Your task to perform on an android device: Go to eBay Image 0: 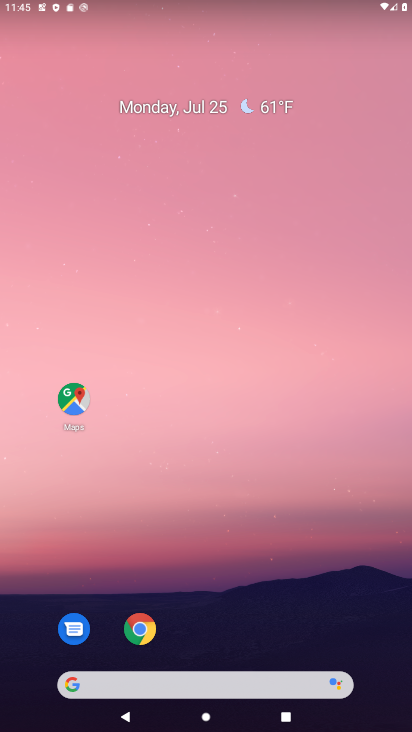
Step 0: click (153, 626)
Your task to perform on an android device: Go to eBay Image 1: 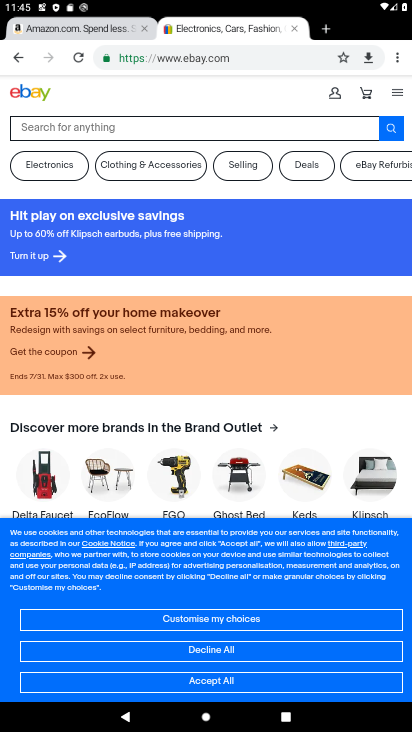
Step 1: click (329, 32)
Your task to perform on an android device: Go to eBay Image 2: 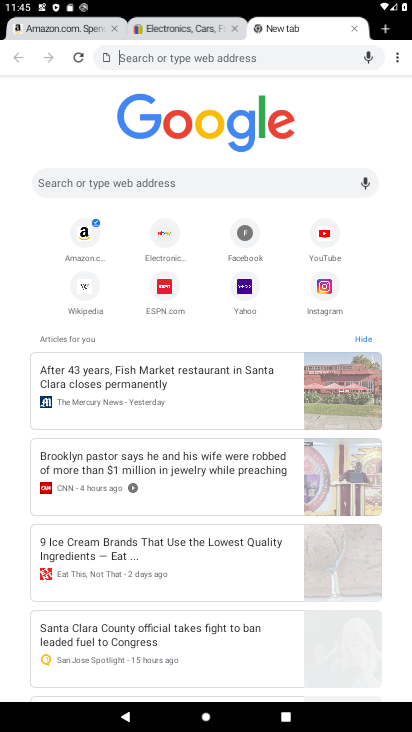
Step 2: click (202, 27)
Your task to perform on an android device: Go to eBay Image 3: 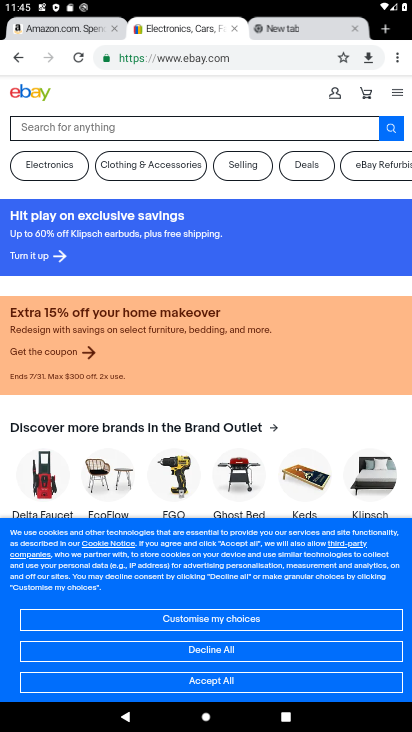
Step 3: task complete